Your task to perform on an android device: see tabs open on other devices in the chrome app Image 0: 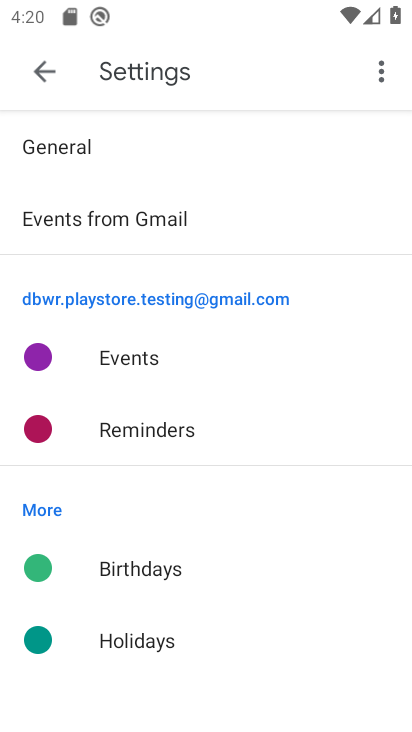
Step 0: press home button
Your task to perform on an android device: see tabs open on other devices in the chrome app Image 1: 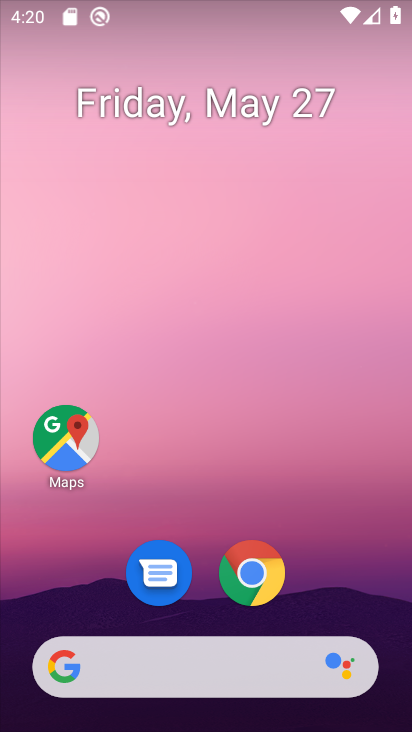
Step 1: click (259, 571)
Your task to perform on an android device: see tabs open on other devices in the chrome app Image 2: 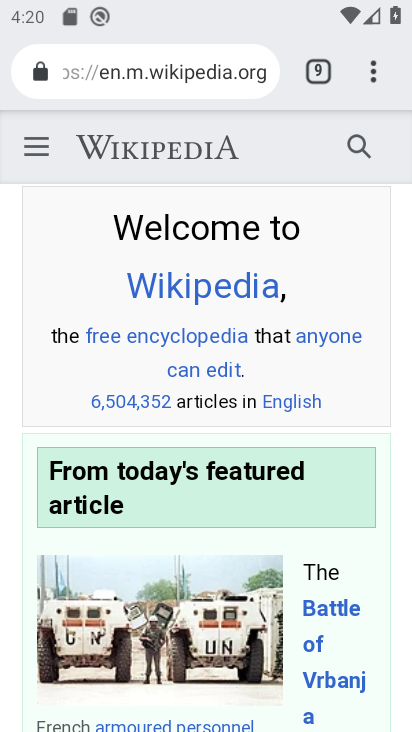
Step 2: click (375, 64)
Your task to perform on an android device: see tabs open on other devices in the chrome app Image 3: 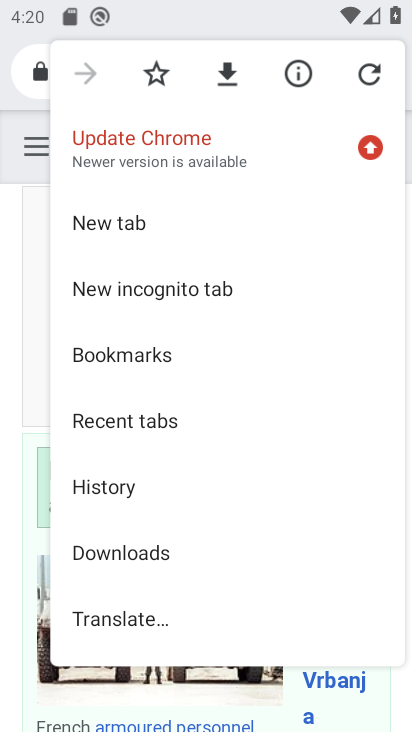
Step 3: click (158, 416)
Your task to perform on an android device: see tabs open on other devices in the chrome app Image 4: 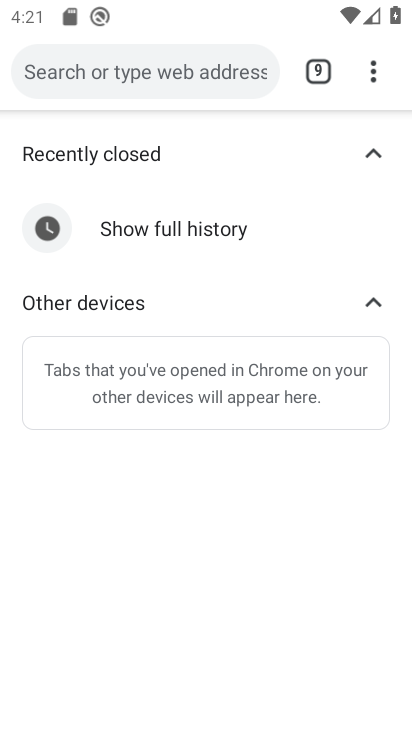
Step 4: task complete